Your task to perform on an android device: Check the weather Image 0: 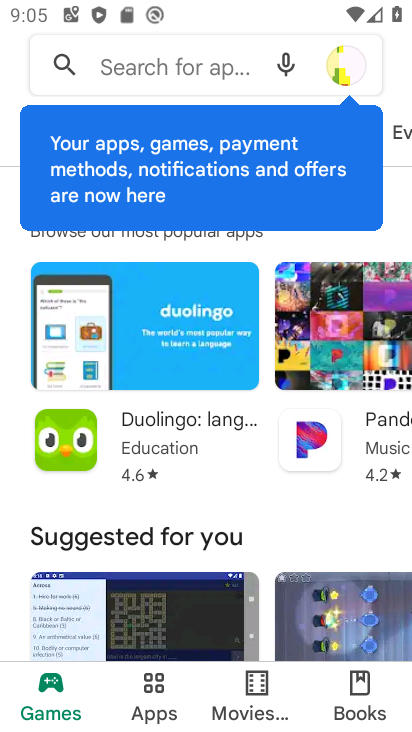
Step 0: press home button
Your task to perform on an android device: Check the weather Image 1: 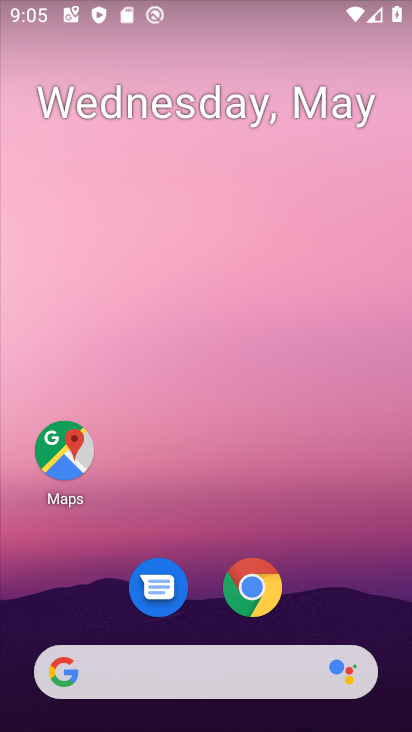
Step 1: drag from (218, 727) to (208, 213)
Your task to perform on an android device: Check the weather Image 2: 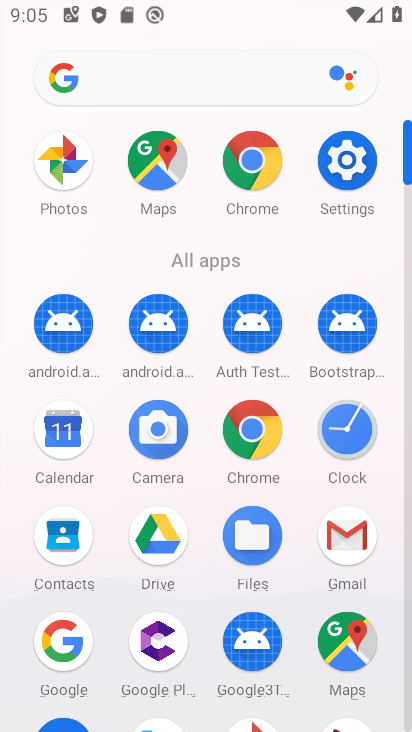
Step 2: click (55, 638)
Your task to perform on an android device: Check the weather Image 3: 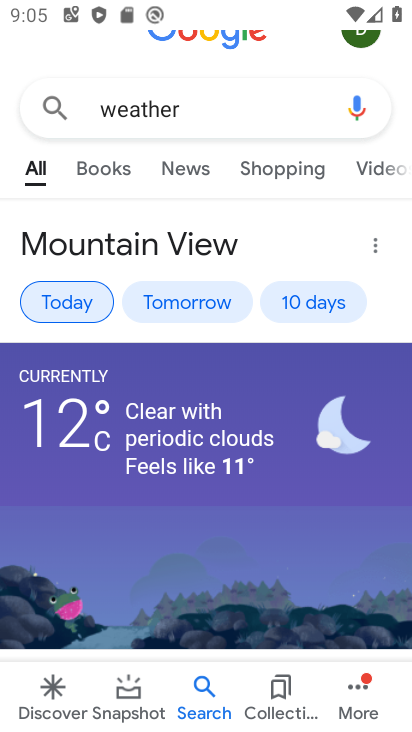
Step 3: click (66, 303)
Your task to perform on an android device: Check the weather Image 4: 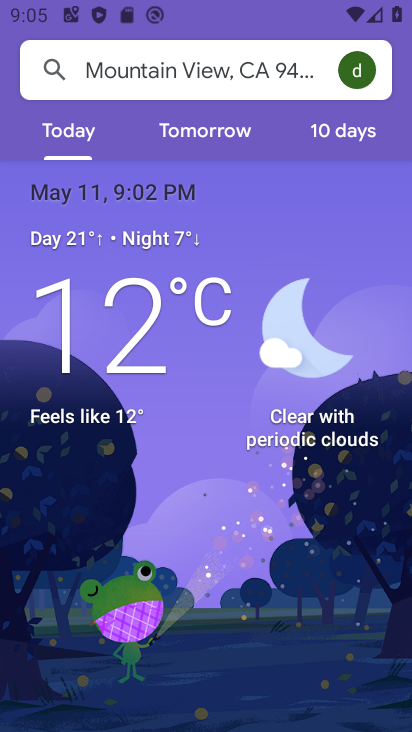
Step 4: task complete